Your task to perform on an android device: check android version Image 0: 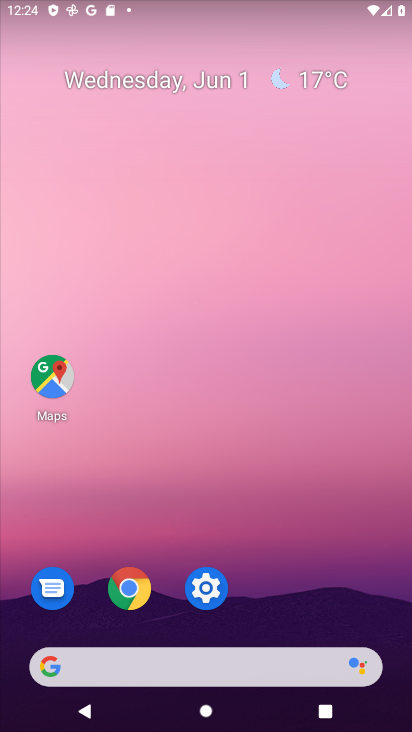
Step 0: press home button
Your task to perform on an android device: check android version Image 1: 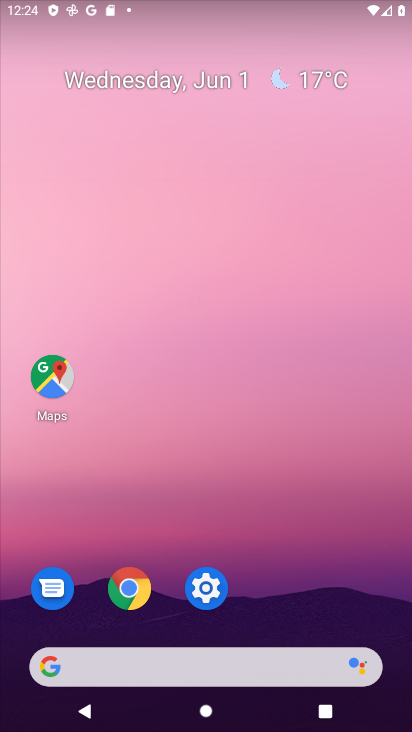
Step 1: drag from (158, 686) to (228, 202)
Your task to perform on an android device: check android version Image 2: 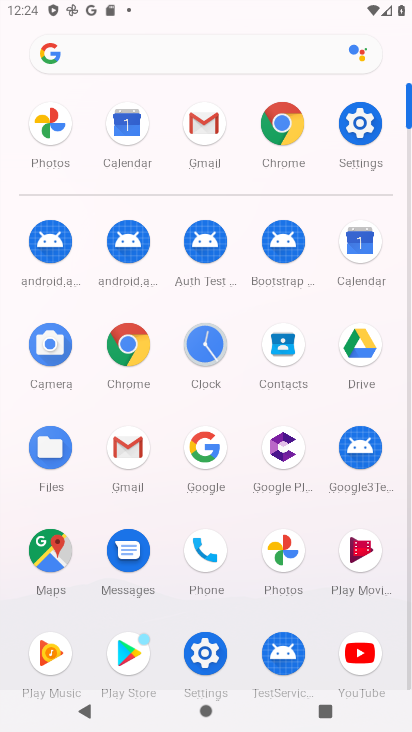
Step 2: click (350, 131)
Your task to perform on an android device: check android version Image 3: 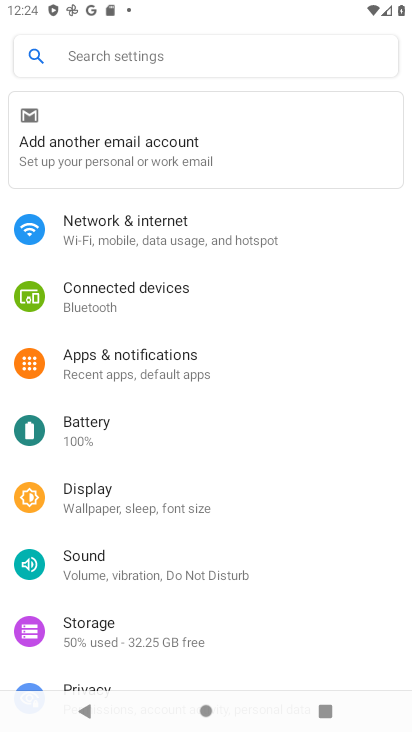
Step 3: click (167, 60)
Your task to perform on an android device: check android version Image 4: 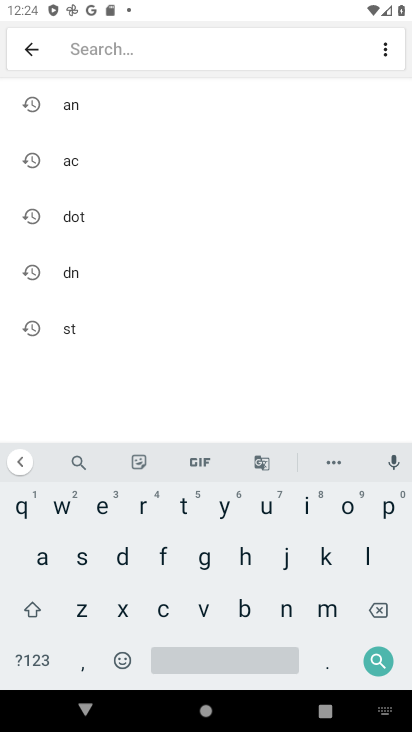
Step 4: click (90, 110)
Your task to perform on an android device: check android version Image 5: 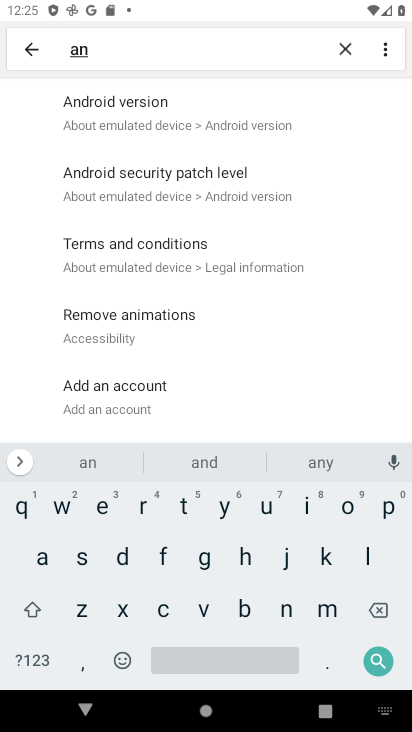
Step 5: click (109, 99)
Your task to perform on an android device: check android version Image 6: 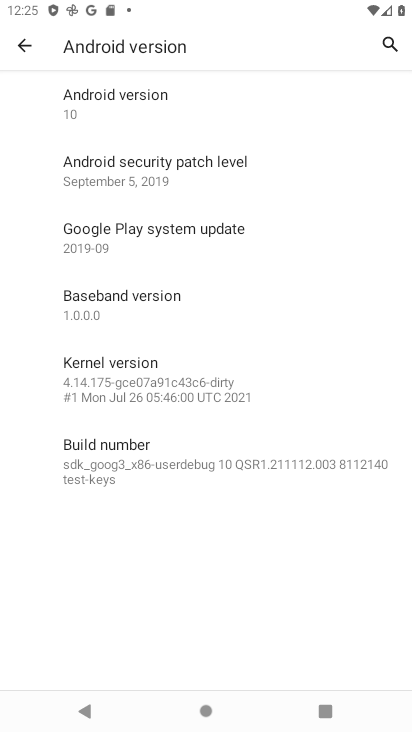
Step 6: click (133, 117)
Your task to perform on an android device: check android version Image 7: 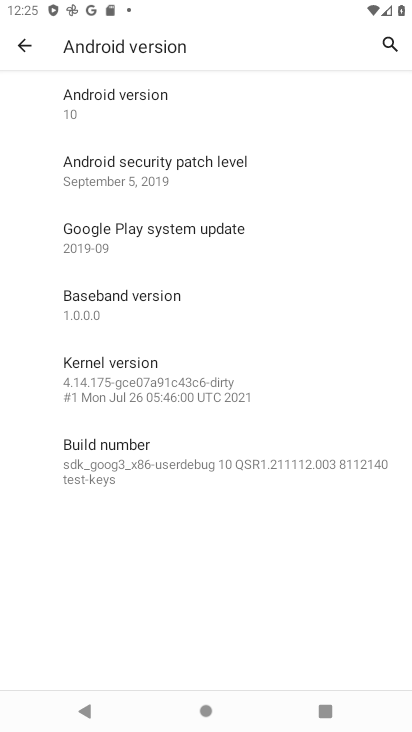
Step 7: task complete